Your task to perform on an android device: toggle sleep mode Image 0: 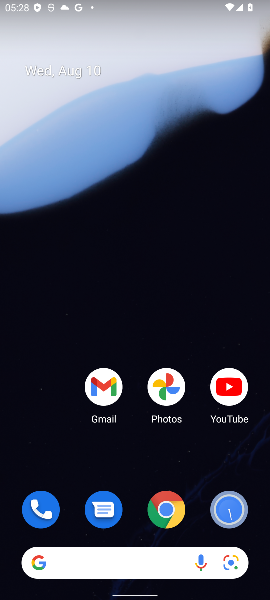
Step 0: drag from (137, 464) to (146, 112)
Your task to perform on an android device: toggle sleep mode Image 1: 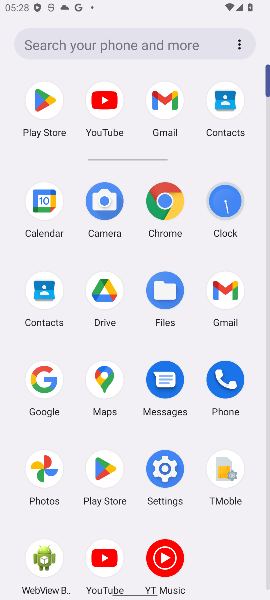
Step 1: click (166, 469)
Your task to perform on an android device: toggle sleep mode Image 2: 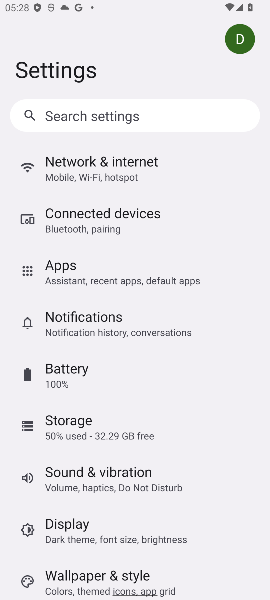
Step 2: drag from (196, 457) to (208, 252)
Your task to perform on an android device: toggle sleep mode Image 3: 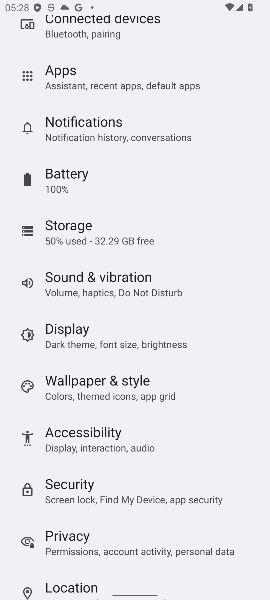
Step 3: click (89, 335)
Your task to perform on an android device: toggle sleep mode Image 4: 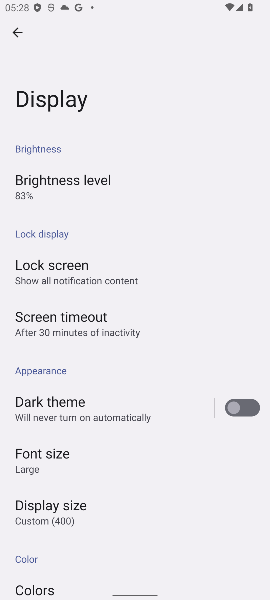
Step 4: click (96, 334)
Your task to perform on an android device: toggle sleep mode Image 5: 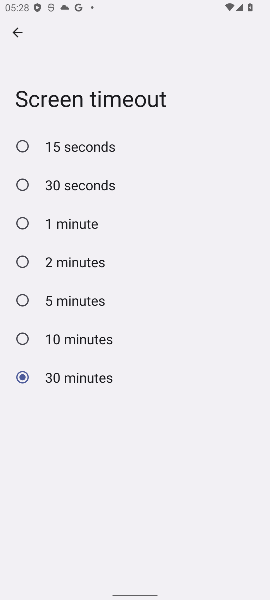
Step 5: click (69, 337)
Your task to perform on an android device: toggle sleep mode Image 6: 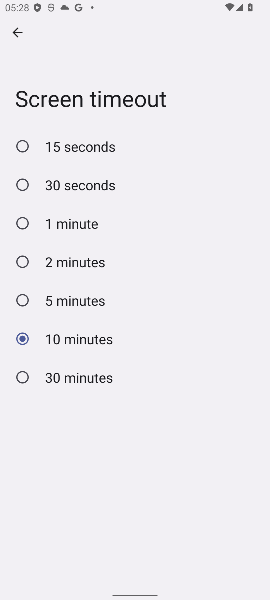
Step 6: task complete